Your task to perform on an android device: open a bookmark in the chrome app Image 0: 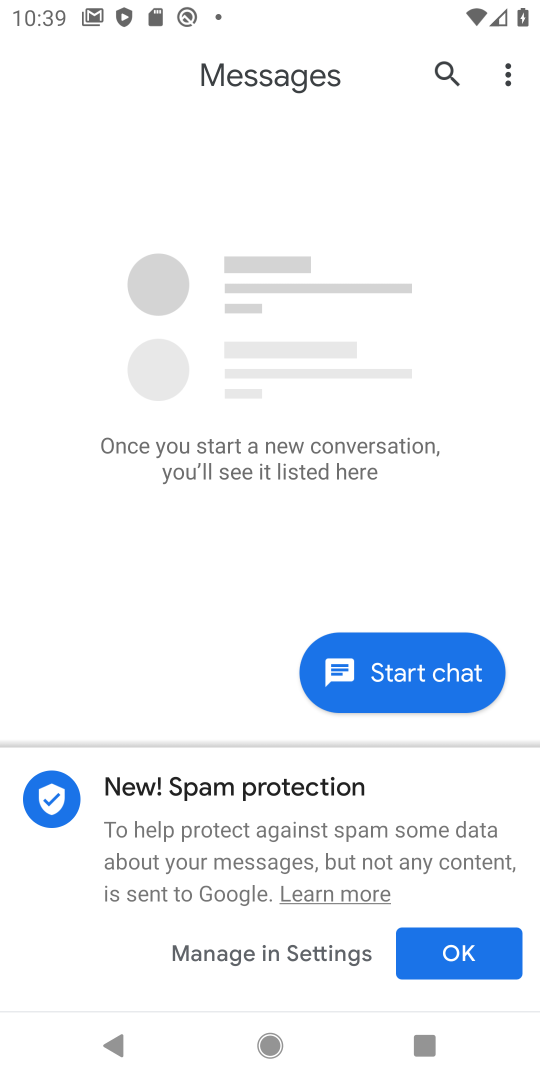
Step 0: click (251, 1045)
Your task to perform on an android device: open a bookmark in the chrome app Image 1: 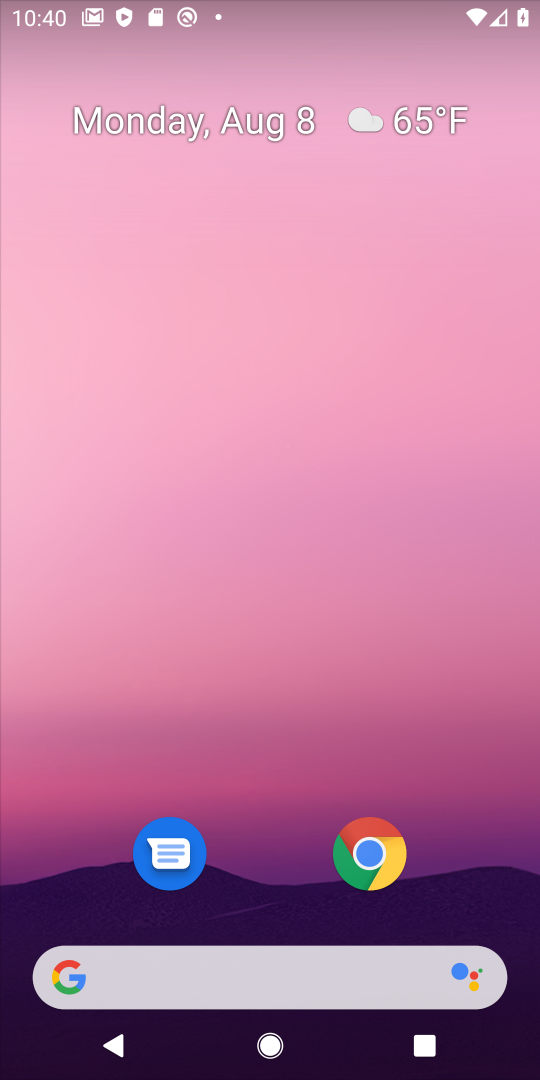
Step 1: click (360, 865)
Your task to perform on an android device: open a bookmark in the chrome app Image 2: 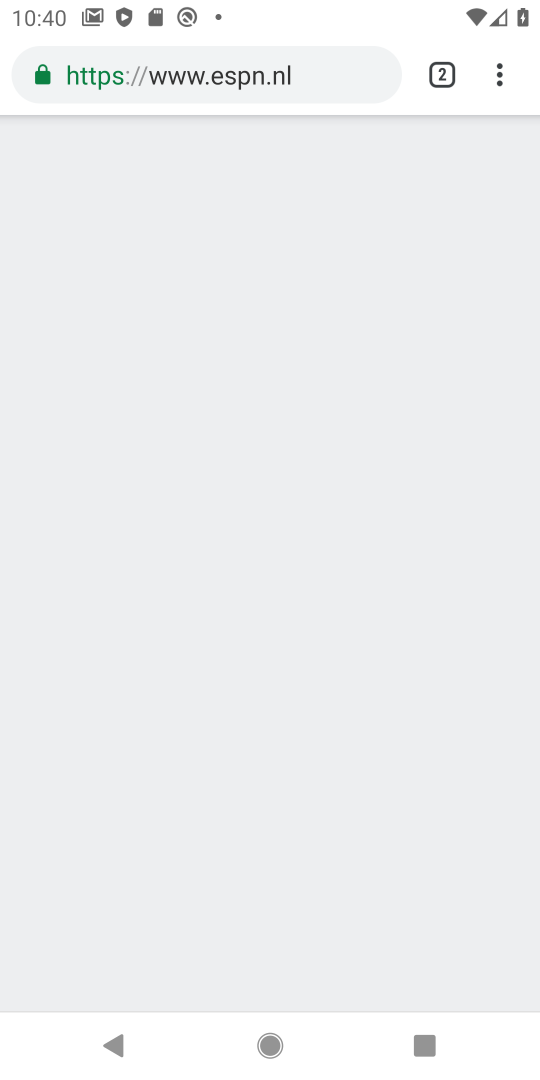
Step 2: click (494, 72)
Your task to perform on an android device: open a bookmark in the chrome app Image 3: 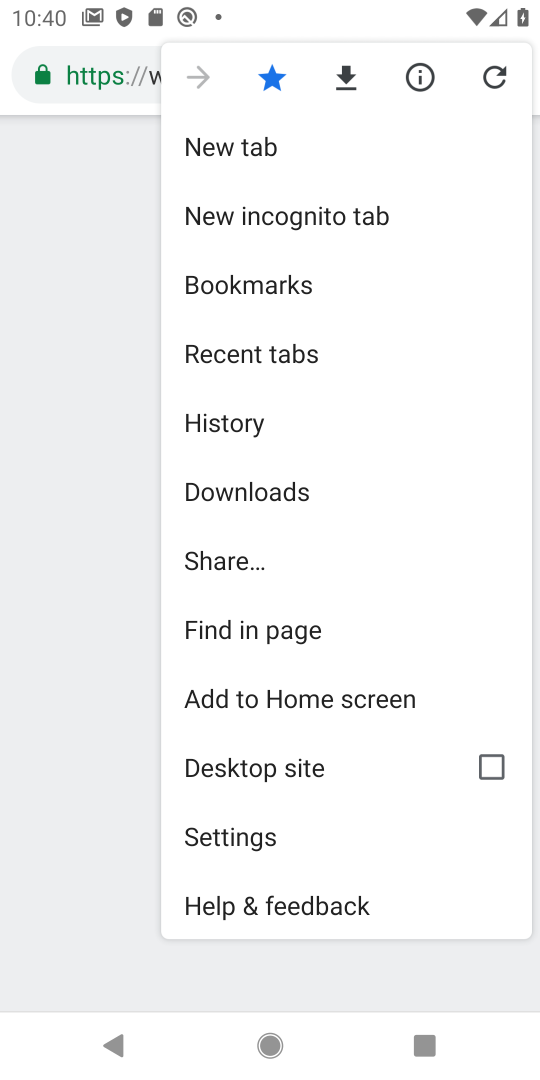
Step 3: click (306, 290)
Your task to perform on an android device: open a bookmark in the chrome app Image 4: 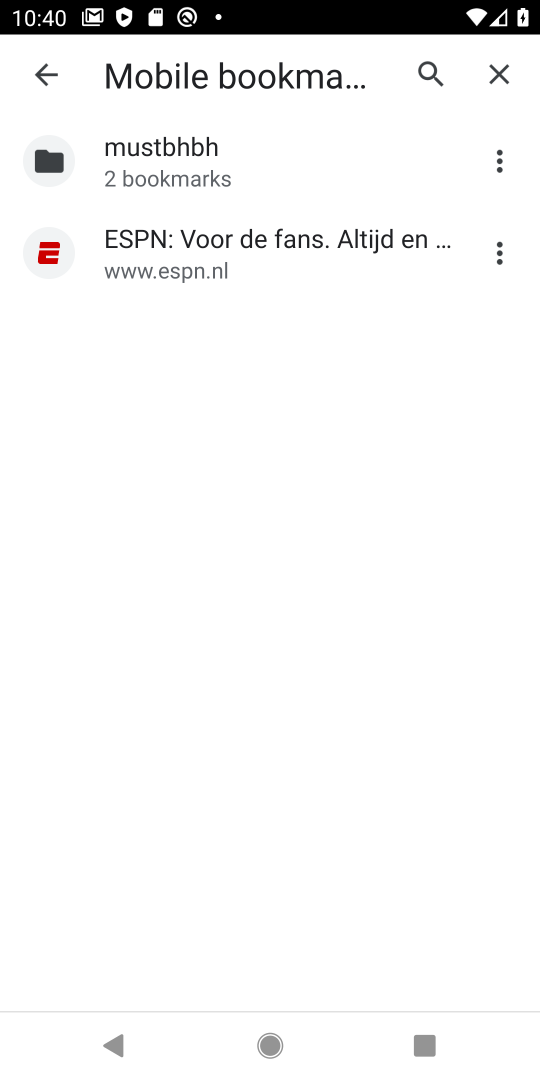
Step 4: click (132, 259)
Your task to perform on an android device: open a bookmark in the chrome app Image 5: 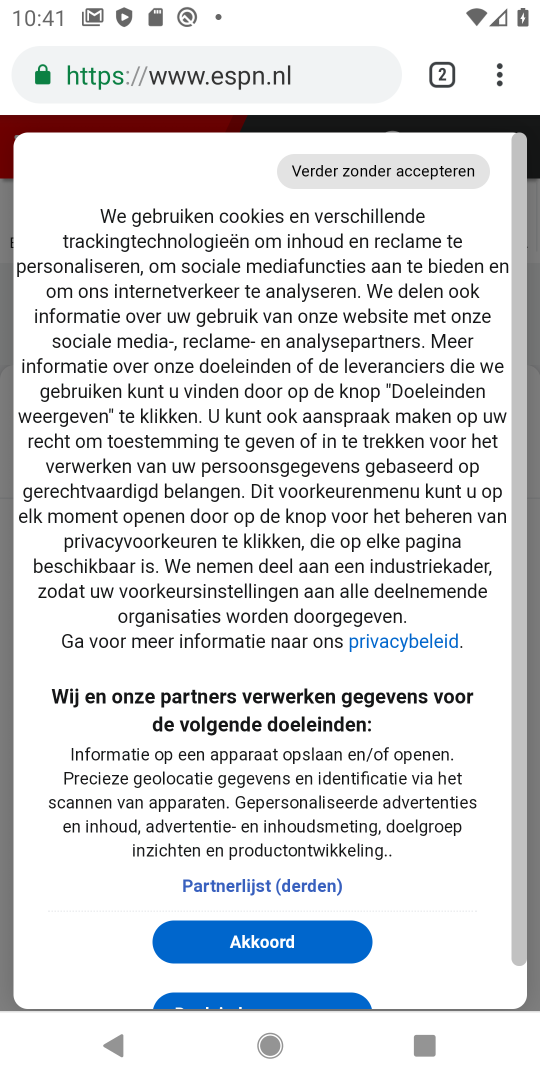
Step 5: click (232, 935)
Your task to perform on an android device: open a bookmark in the chrome app Image 6: 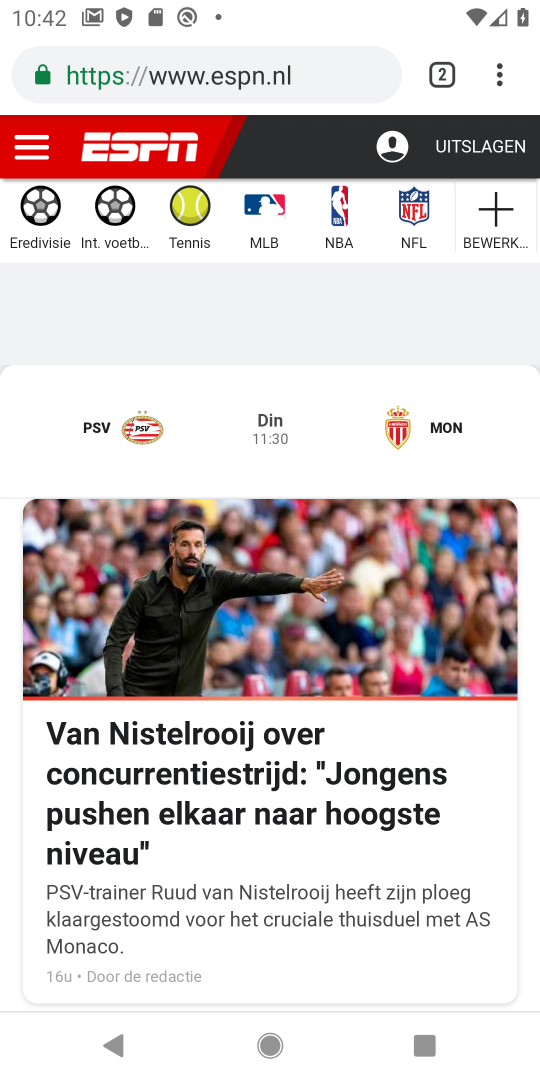
Step 6: task complete